Your task to perform on an android device: turn off data saver in the chrome app Image 0: 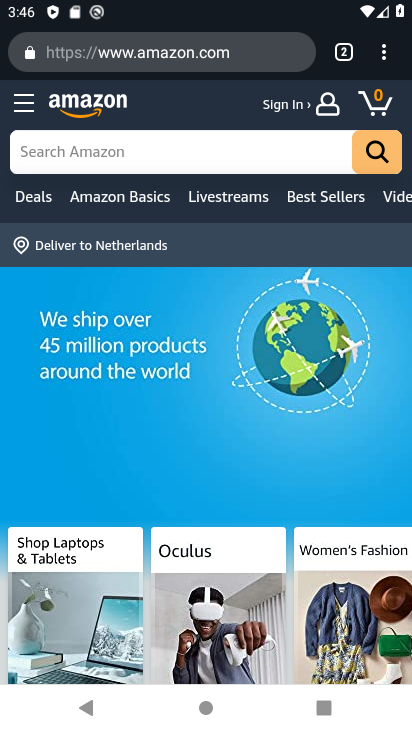
Step 0: press home button
Your task to perform on an android device: turn off data saver in the chrome app Image 1: 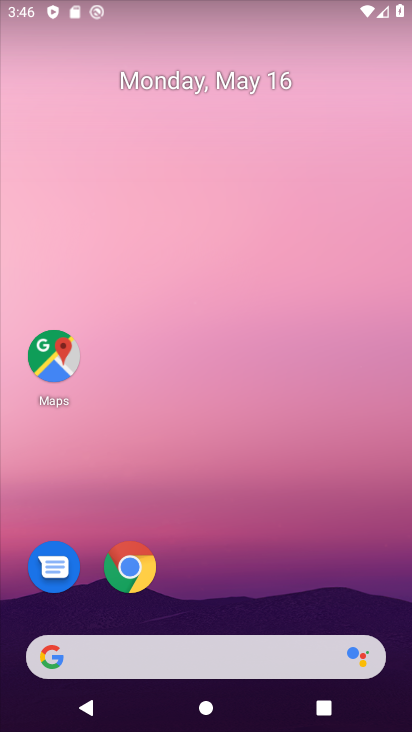
Step 1: drag from (198, 694) to (297, 21)
Your task to perform on an android device: turn off data saver in the chrome app Image 2: 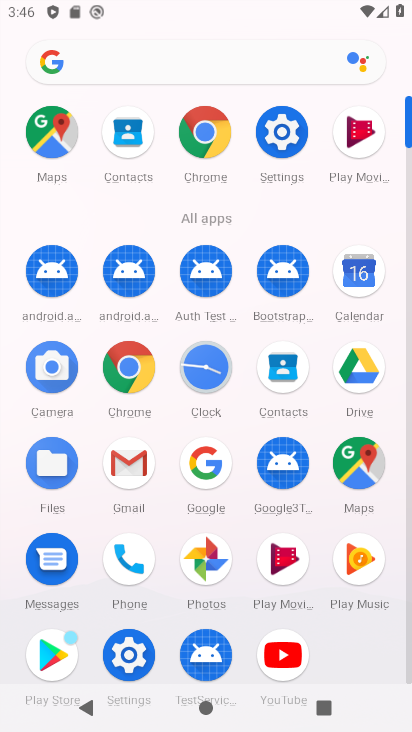
Step 2: click (143, 382)
Your task to perform on an android device: turn off data saver in the chrome app Image 3: 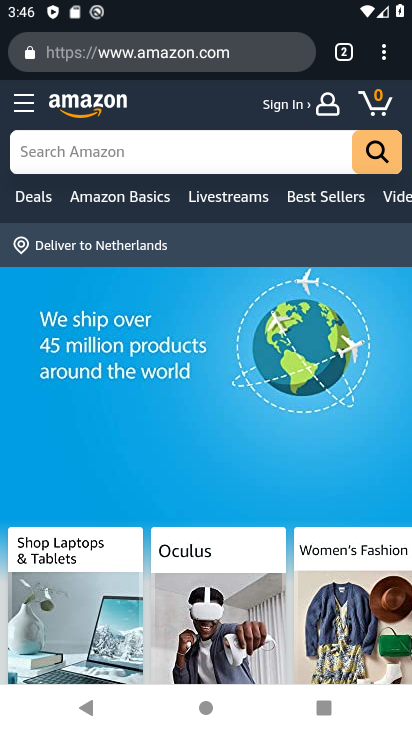
Step 3: click (387, 64)
Your task to perform on an android device: turn off data saver in the chrome app Image 4: 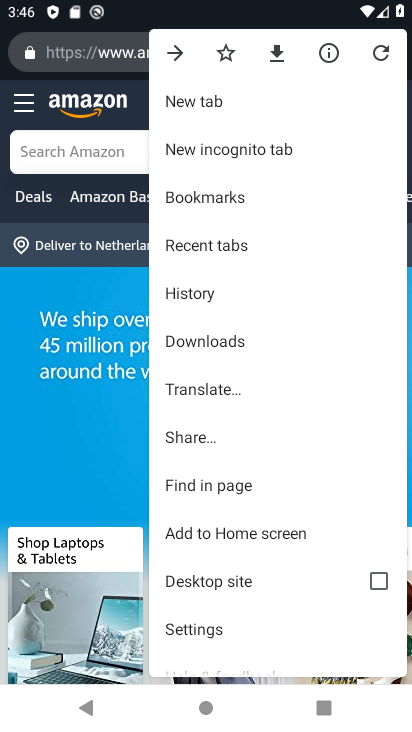
Step 4: click (225, 627)
Your task to perform on an android device: turn off data saver in the chrome app Image 5: 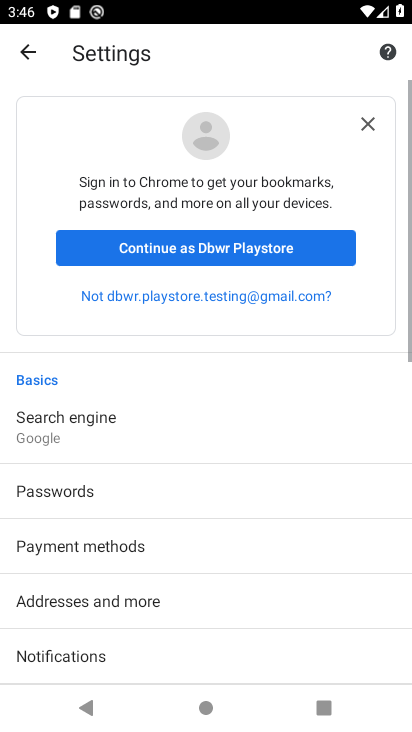
Step 5: drag from (225, 627) to (247, 70)
Your task to perform on an android device: turn off data saver in the chrome app Image 6: 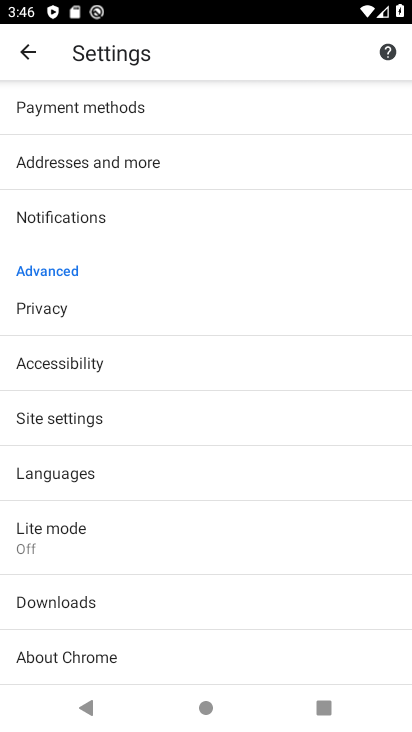
Step 6: click (86, 527)
Your task to perform on an android device: turn off data saver in the chrome app Image 7: 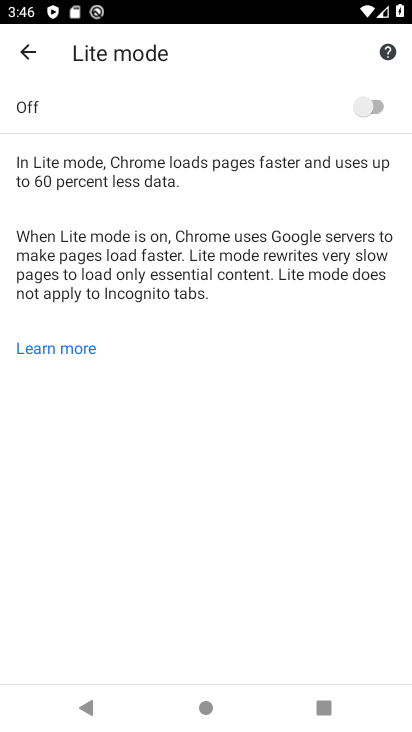
Step 7: task complete